Your task to perform on an android device: toggle notifications settings in the gmail app Image 0: 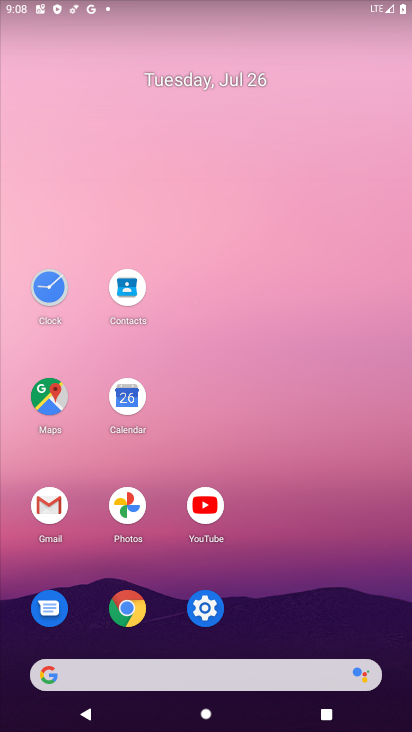
Step 0: click (46, 504)
Your task to perform on an android device: toggle notifications settings in the gmail app Image 1: 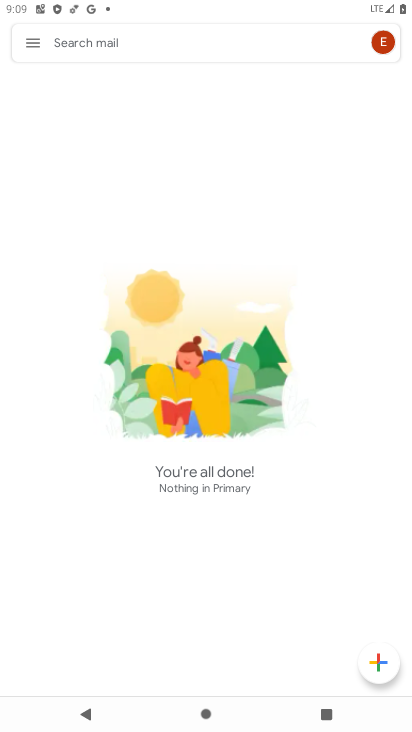
Step 1: click (32, 39)
Your task to perform on an android device: toggle notifications settings in the gmail app Image 2: 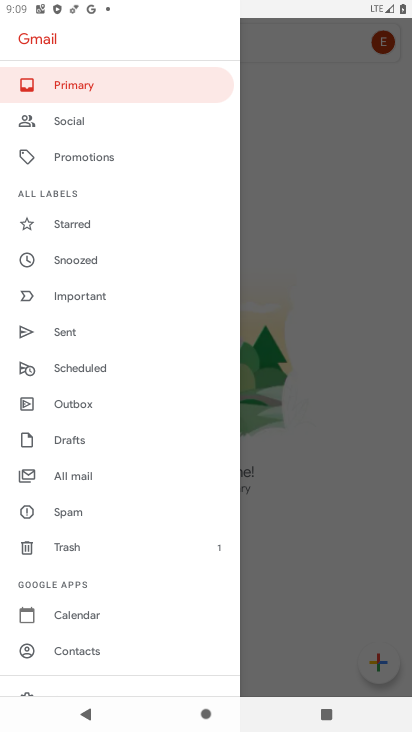
Step 2: drag from (117, 606) to (165, 242)
Your task to perform on an android device: toggle notifications settings in the gmail app Image 3: 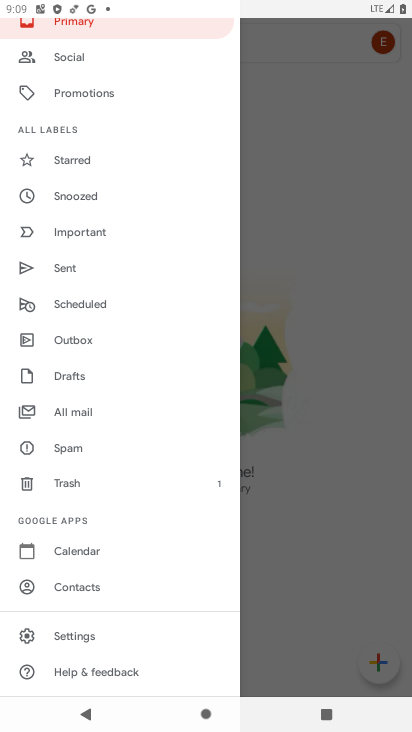
Step 3: click (60, 635)
Your task to perform on an android device: toggle notifications settings in the gmail app Image 4: 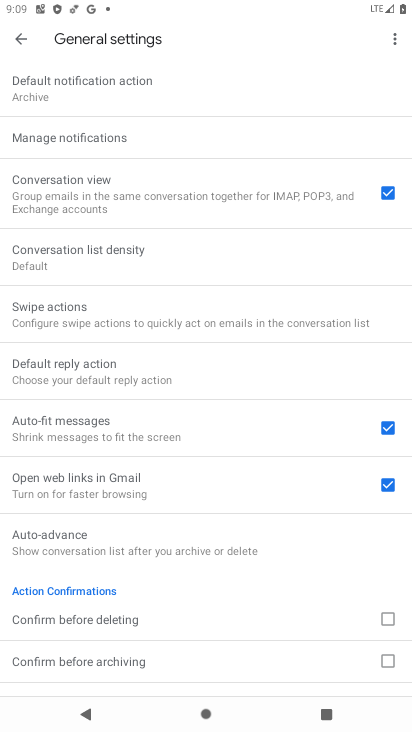
Step 4: click (76, 137)
Your task to perform on an android device: toggle notifications settings in the gmail app Image 5: 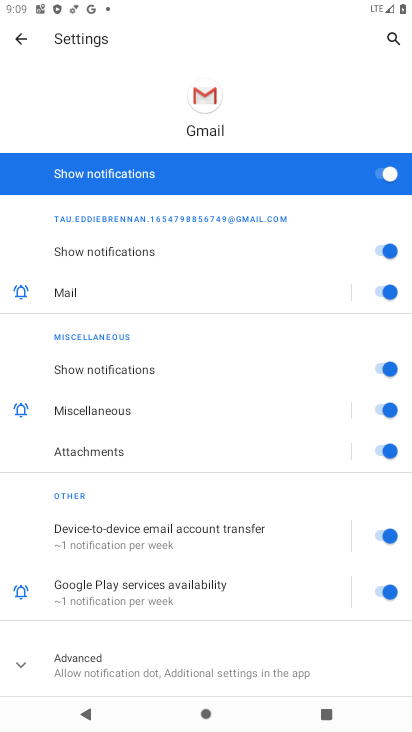
Step 5: click (387, 173)
Your task to perform on an android device: toggle notifications settings in the gmail app Image 6: 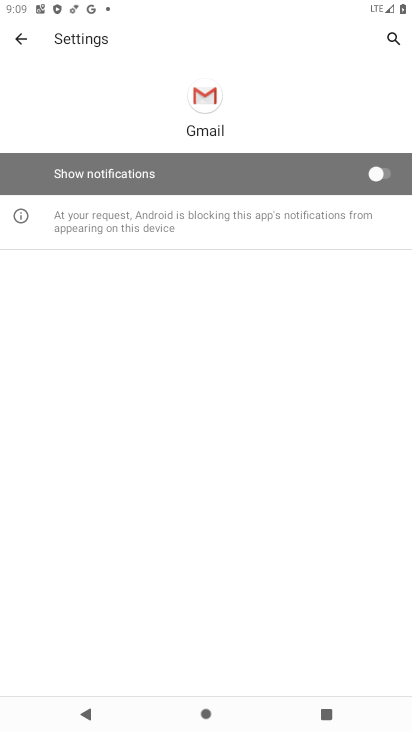
Step 6: task complete